Your task to perform on an android device: Go to Amazon Image 0: 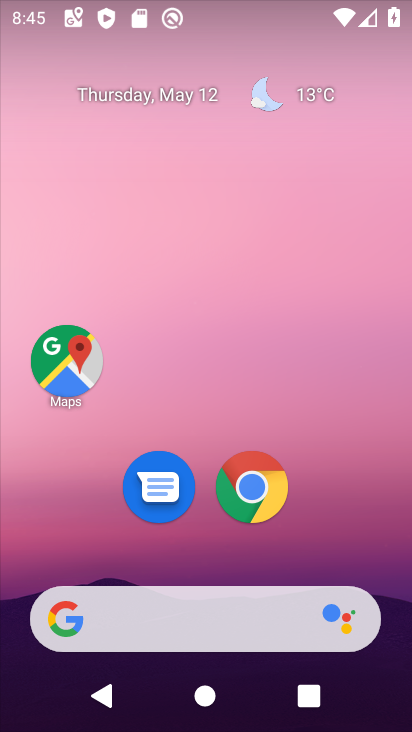
Step 0: click (247, 486)
Your task to perform on an android device: Go to Amazon Image 1: 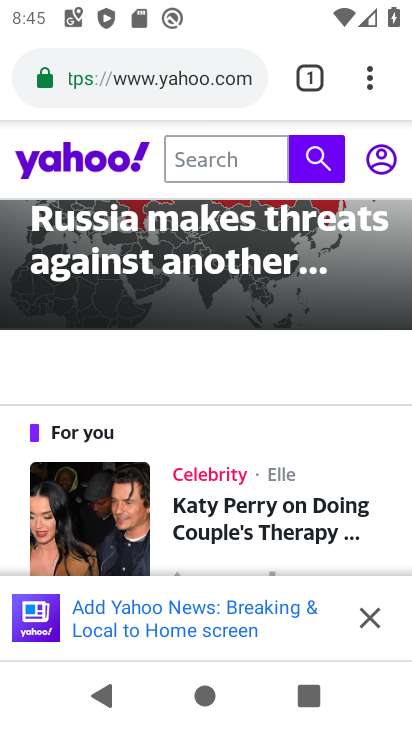
Step 1: click (153, 73)
Your task to perform on an android device: Go to Amazon Image 2: 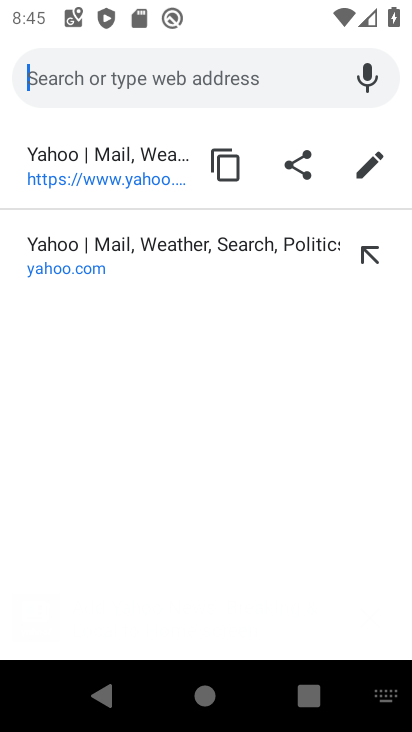
Step 2: type "amazon"
Your task to perform on an android device: Go to Amazon Image 3: 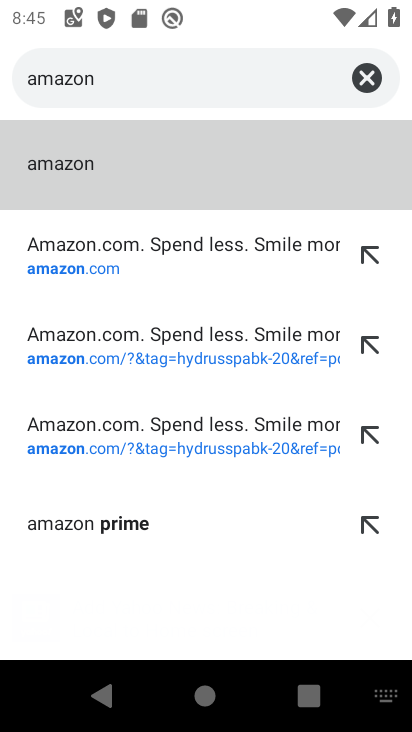
Step 3: click (72, 176)
Your task to perform on an android device: Go to Amazon Image 4: 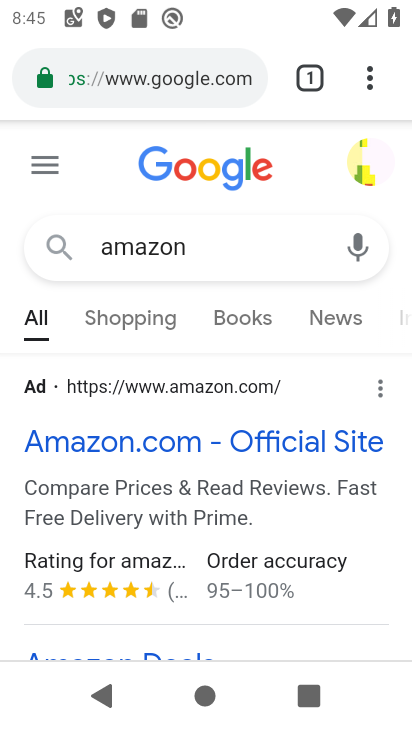
Step 4: click (92, 443)
Your task to perform on an android device: Go to Amazon Image 5: 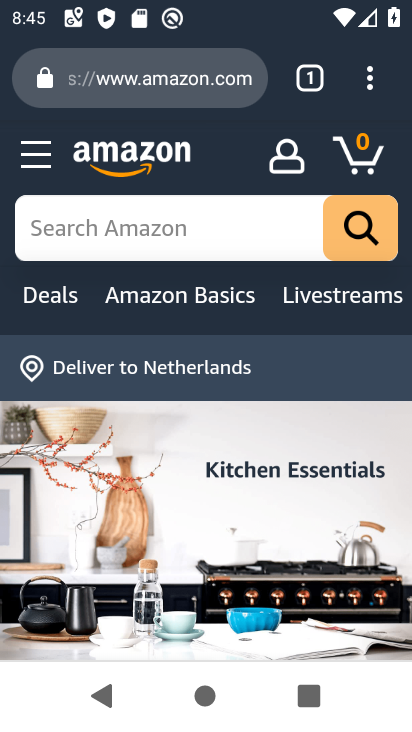
Step 5: task complete